Your task to perform on an android device: toggle notification dots Image 0: 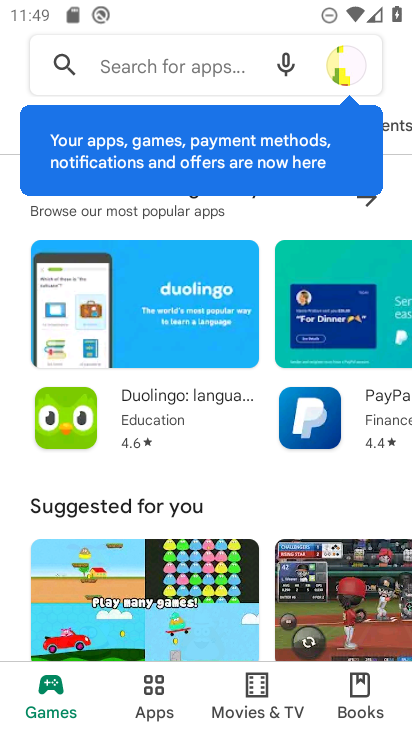
Step 0: press home button
Your task to perform on an android device: toggle notification dots Image 1: 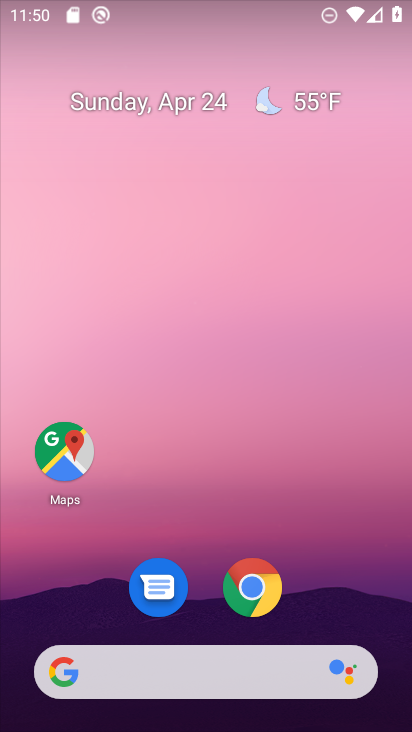
Step 1: drag from (319, 507) to (334, 37)
Your task to perform on an android device: toggle notification dots Image 2: 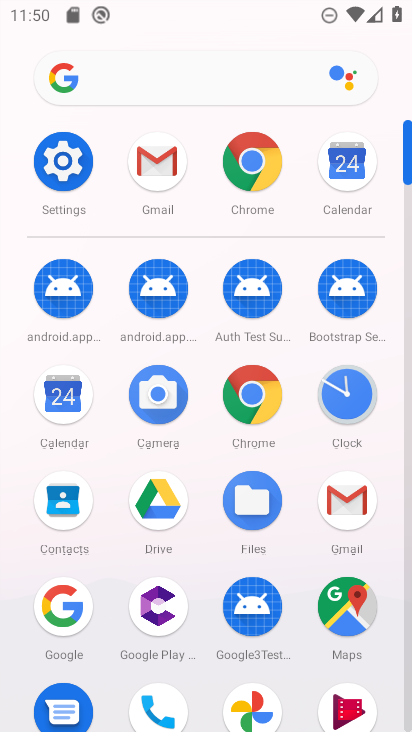
Step 2: drag from (213, 550) to (276, 0)
Your task to perform on an android device: toggle notification dots Image 3: 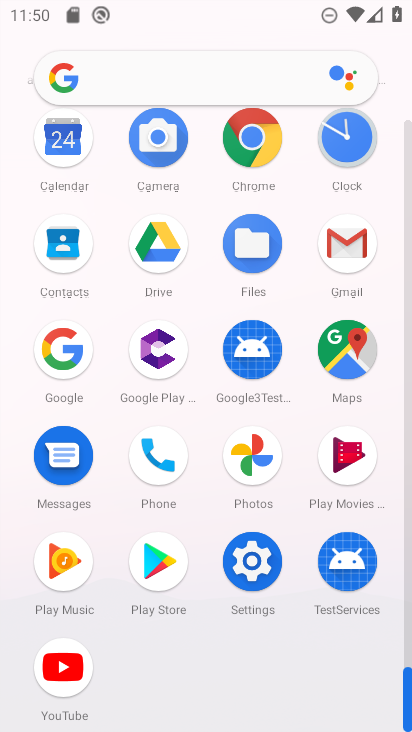
Step 3: click (262, 551)
Your task to perform on an android device: toggle notification dots Image 4: 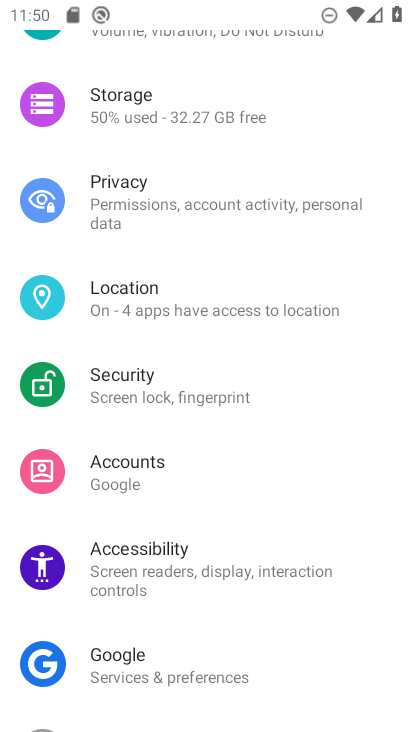
Step 4: drag from (224, 136) to (208, 543)
Your task to perform on an android device: toggle notification dots Image 5: 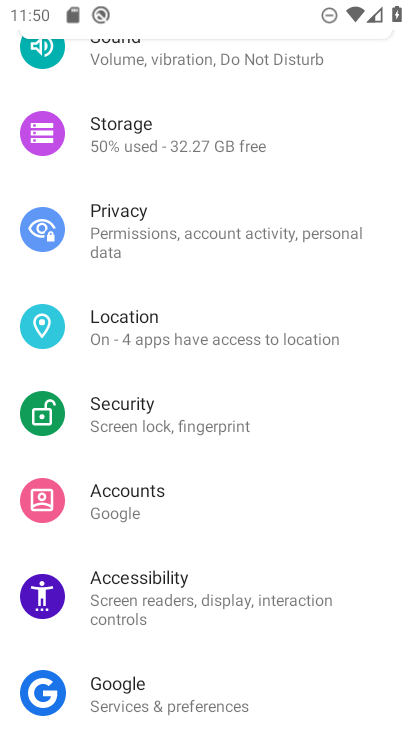
Step 5: drag from (217, 87) to (225, 594)
Your task to perform on an android device: toggle notification dots Image 6: 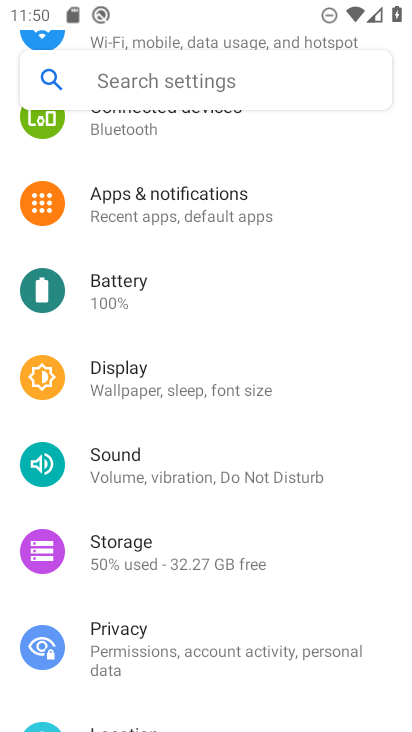
Step 6: click (132, 198)
Your task to perform on an android device: toggle notification dots Image 7: 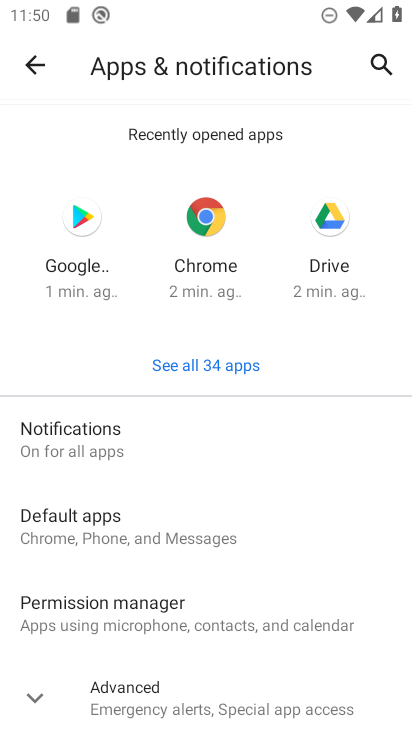
Step 7: click (196, 699)
Your task to perform on an android device: toggle notification dots Image 8: 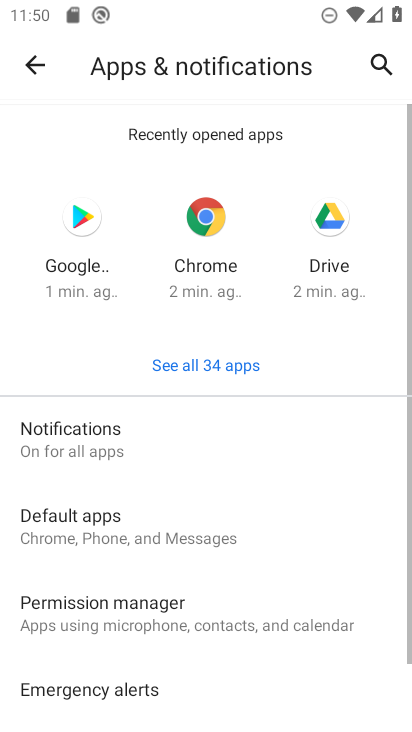
Step 8: drag from (272, 602) to (296, 3)
Your task to perform on an android device: toggle notification dots Image 9: 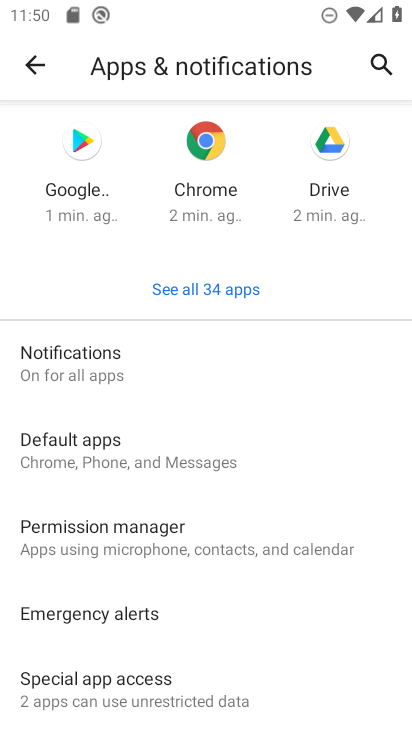
Step 9: click (100, 376)
Your task to perform on an android device: toggle notification dots Image 10: 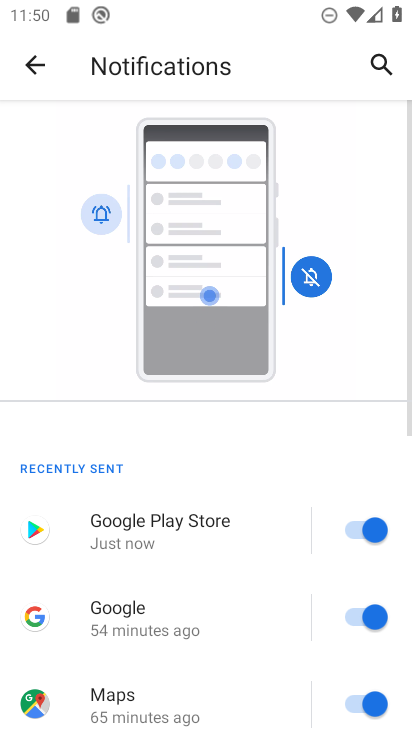
Step 10: drag from (191, 614) to (226, 7)
Your task to perform on an android device: toggle notification dots Image 11: 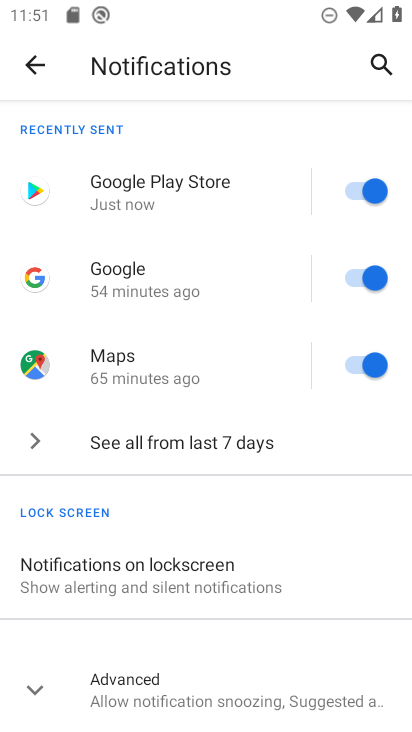
Step 11: click (165, 690)
Your task to perform on an android device: toggle notification dots Image 12: 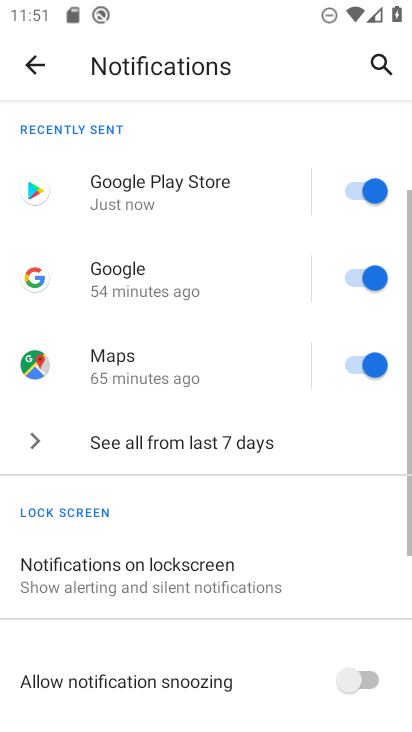
Step 12: drag from (236, 655) to (295, 149)
Your task to perform on an android device: toggle notification dots Image 13: 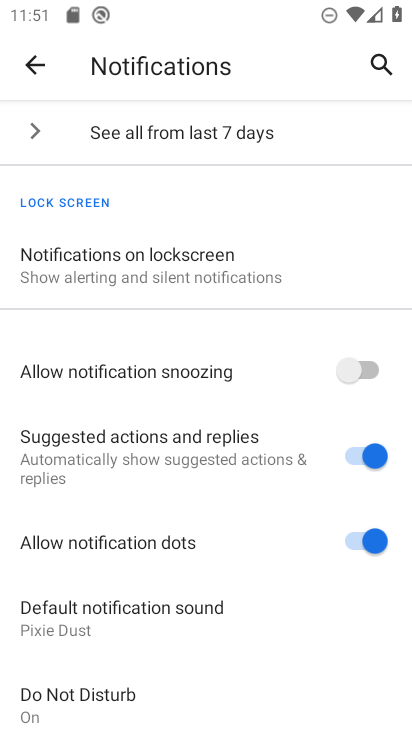
Step 13: click (363, 524)
Your task to perform on an android device: toggle notification dots Image 14: 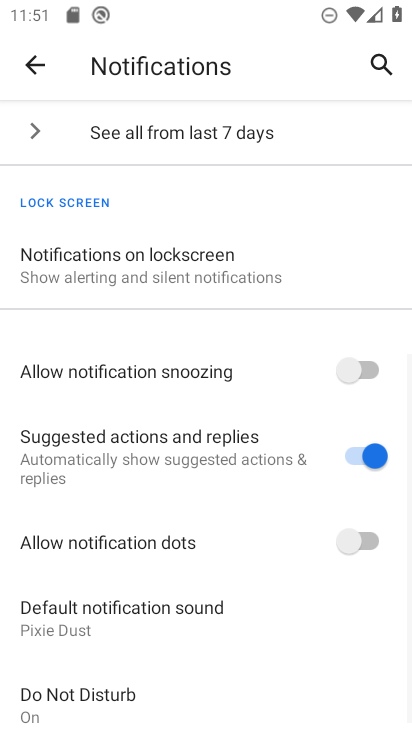
Step 14: task complete